Your task to perform on an android device: Go to Reddit.com Image 0: 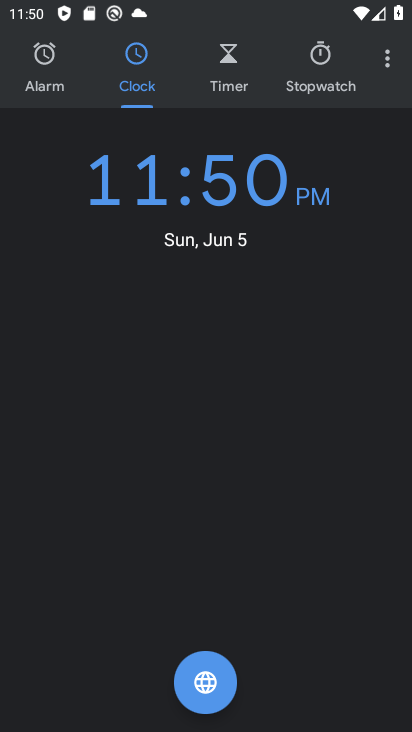
Step 0: press back button
Your task to perform on an android device: Go to Reddit.com Image 1: 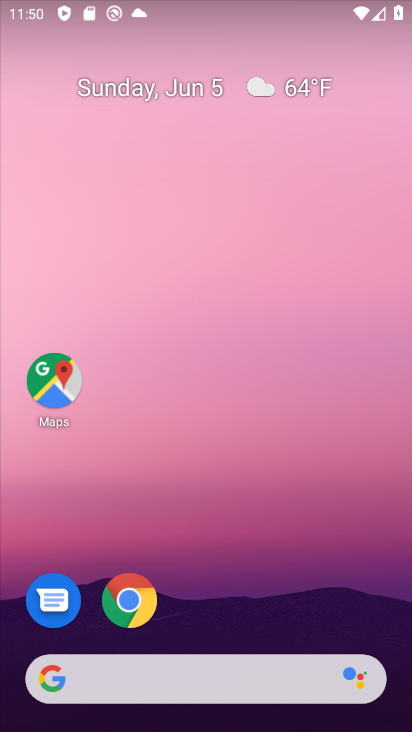
Step 1: drag from (245, 475) to (203, 180)
Your task to perform on an android device: Go to Reddit.com Image 2: 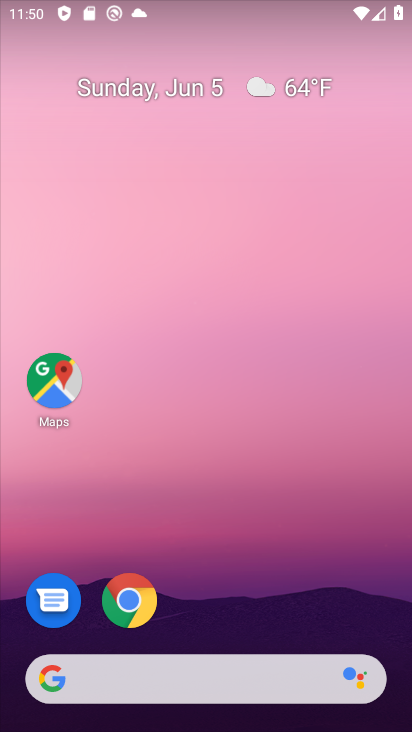
Step 2: click (146, 159)
Your task to perform on an android device: Go to Reddit.com Image 3: 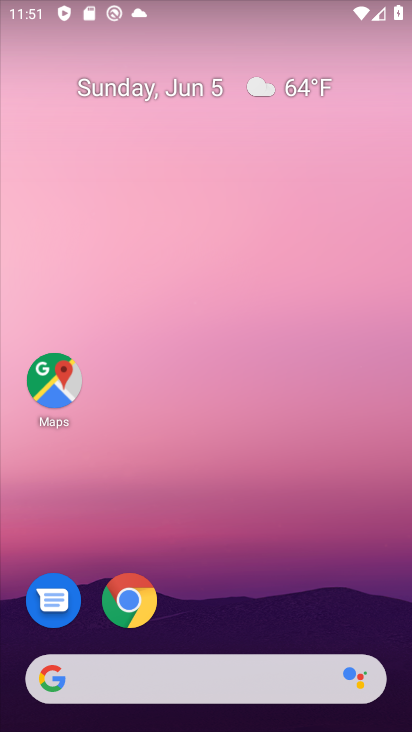
Step 3: drag from (234, 715) to (325, 6)
Your task to perform on an android device: Go to Reddit.com Image 4: 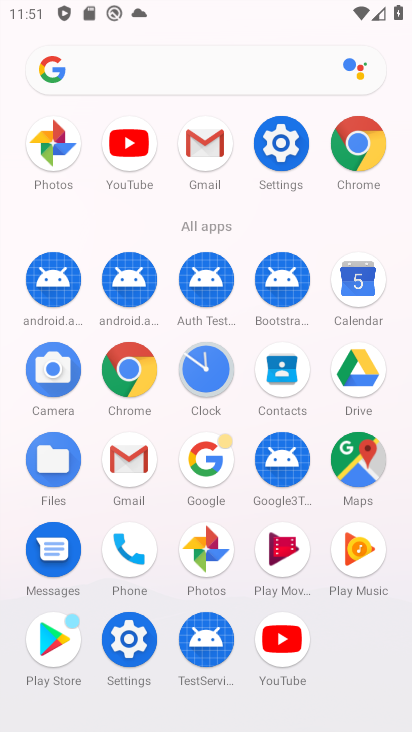
Step 4: click (358, 164)
Your task to perform on an android device: Go to Reddit.com Image 5: 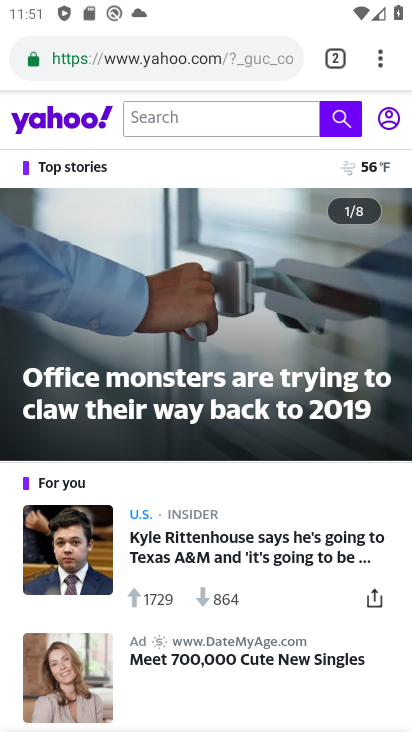
Step 5: click (370, 62)
Your task to perform on an android device: Go to Reddit.com Image 6: 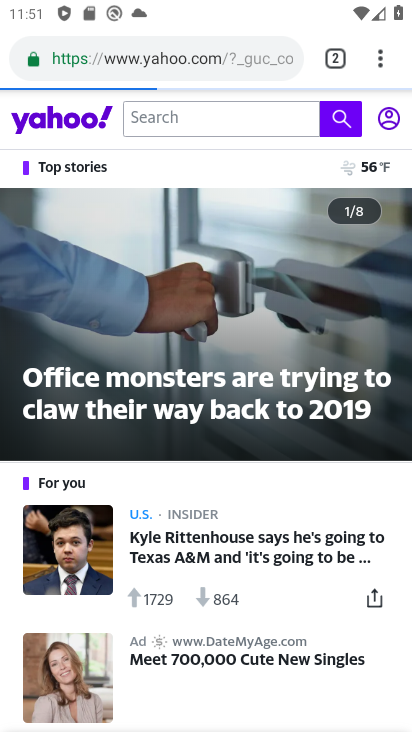
Step 6: drag from (379, 60) to (147, 115)
Your task to perform on an android device: Go to Reddit.com Image 7: 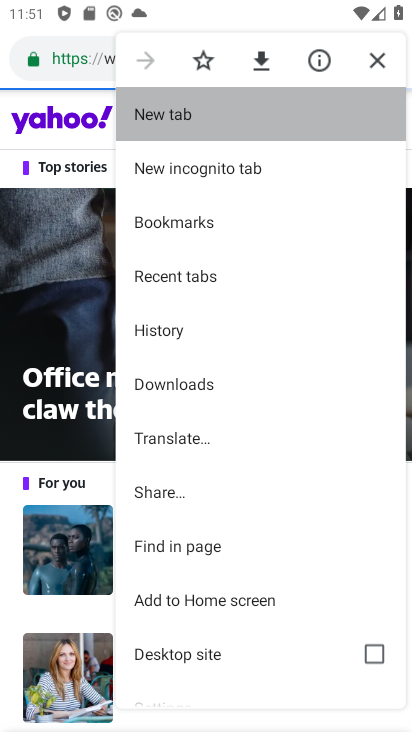
Step 7: click (147, 115)
Your task to perform on an android device: Go to Reddit.com Image 8: 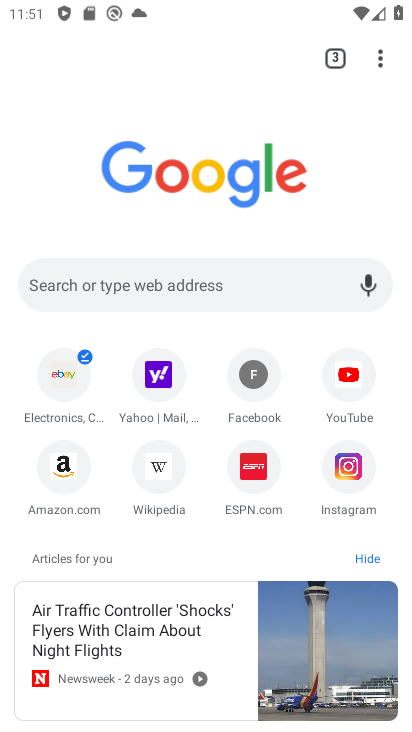
Step 8: click (53, 292)
Your task to perform on an android device: Go to Reddit.com Image 9: 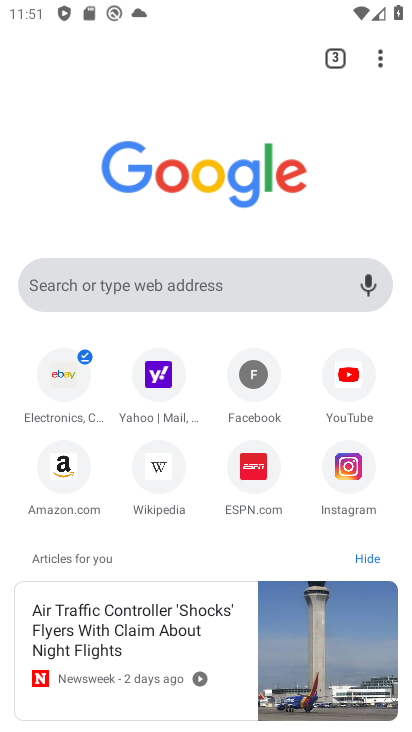
Step 9: click (56, 280)
Your task to perform on an android device: Go to Reddit.com Image 10: 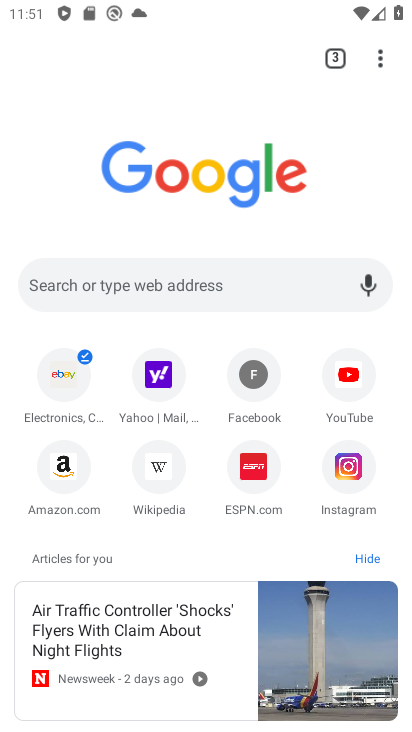
Step 10: type "reddit.com"
Your task to perform on an android device: Go to Reddit.com Image 11: 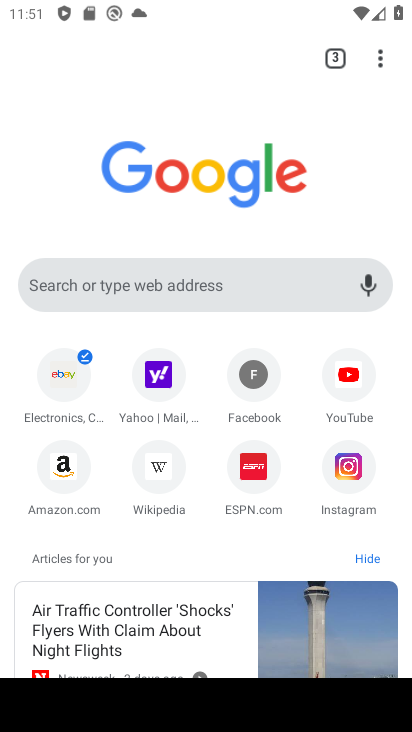
Step 11: click (47, 278)
Your task to perform on an android device: Go to Reddit.com Image 12: 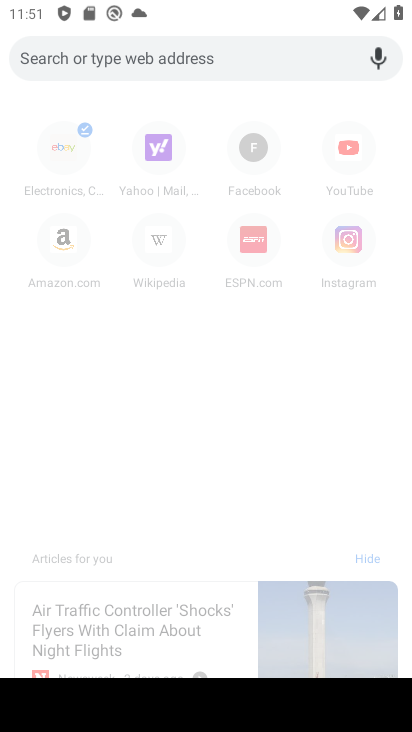
Step 12: type "reddit.com"
Your task to perform on an android device: Go to Reddit.com Image 13: 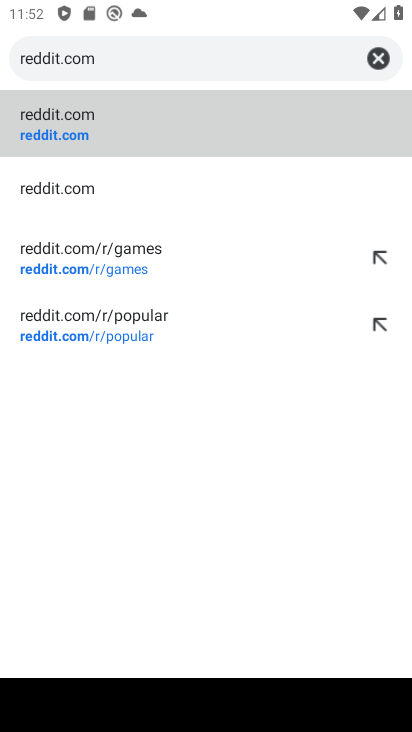
Step 13: click (42, 125)
Your task to perform on an android device: Go to Reddit.com Image 14: 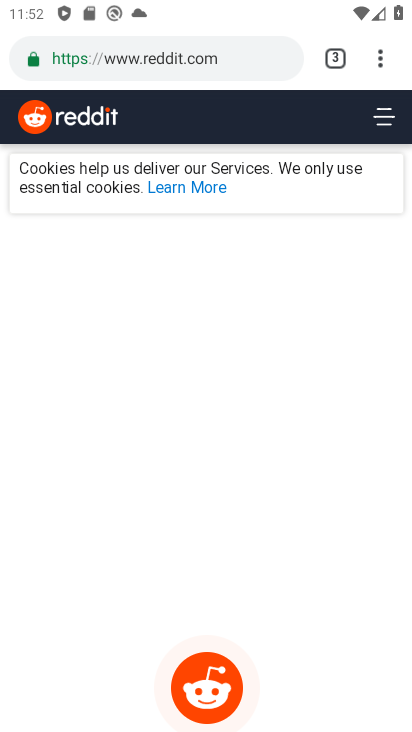
Step 14: task complete